Your task to perform on an android device: turn on javascript in the chrome app Image 0: 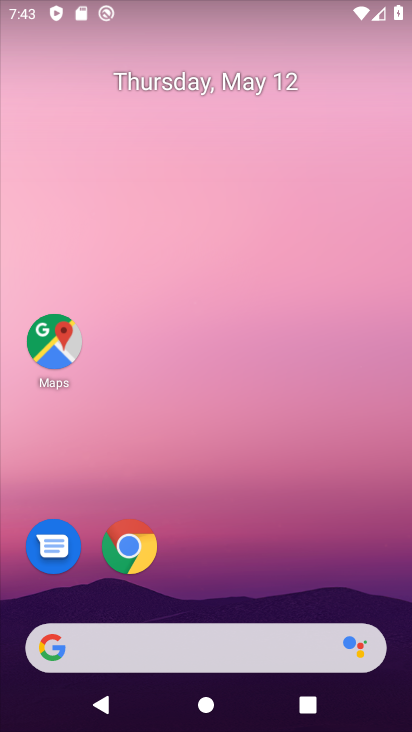
Step 0: click (136, 545)
Your task to perform on an android device: turn on javascript in the chrome app Image 1: 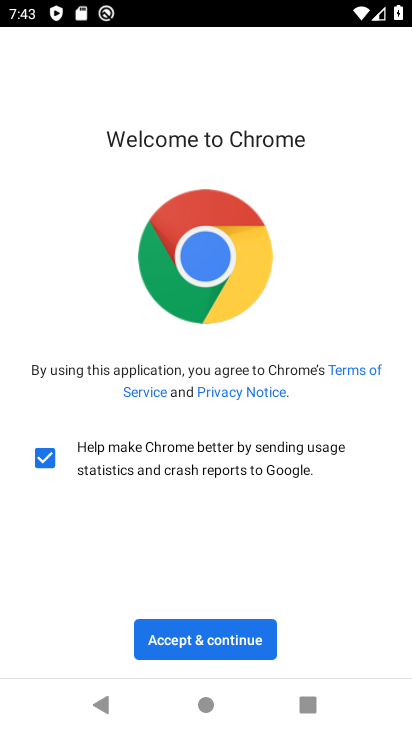
Step 1: click (159, 638)
Your task to perform on an android device: turn on javascript in the chrome app Image 2: 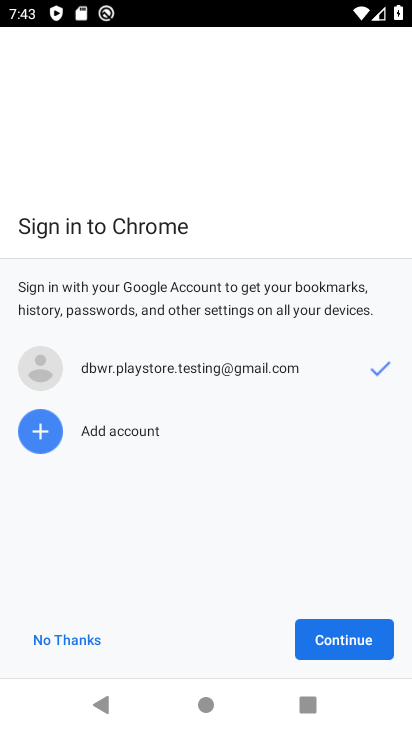
Step 2: click (354, 658)
Your task to perform on an android device: turn on javascript in the chrome app Image 3: 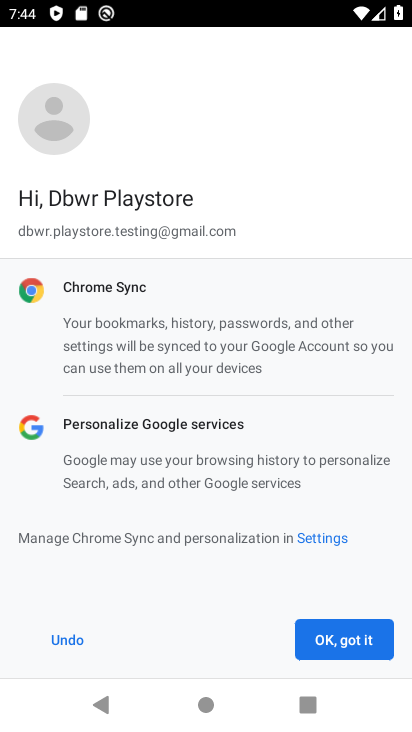
Step 3: click (354, 658)
Your task to perform on an android device: turn on javascript in the chrome app Image 4: 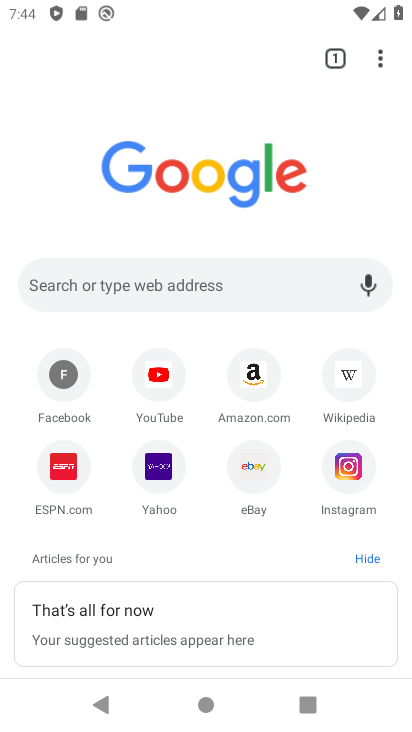
Step 4: drag from (380, 62) to (167, 493)
Your task to perform on an android device: turn on javascript in the chrome app Image 5: 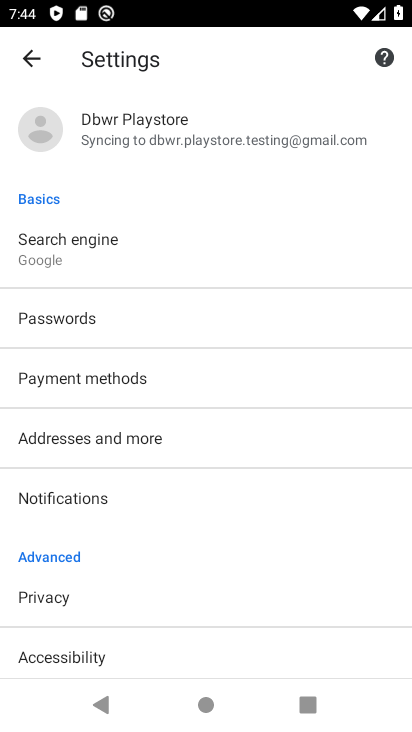
Step 5: drag from (136, 631) to (202, 286)
Your task to perform on an android device: turn on javascript in the chrome app Image 6: 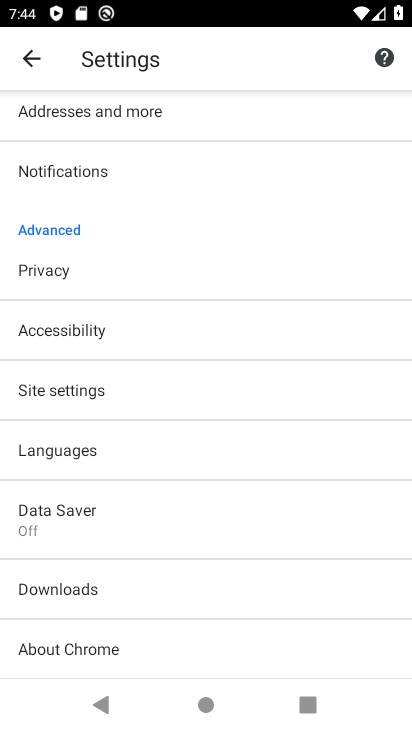
Step 6: click (83, 393)
Your task to perform on an android device: turn on javascript in the chrome app Image 7: 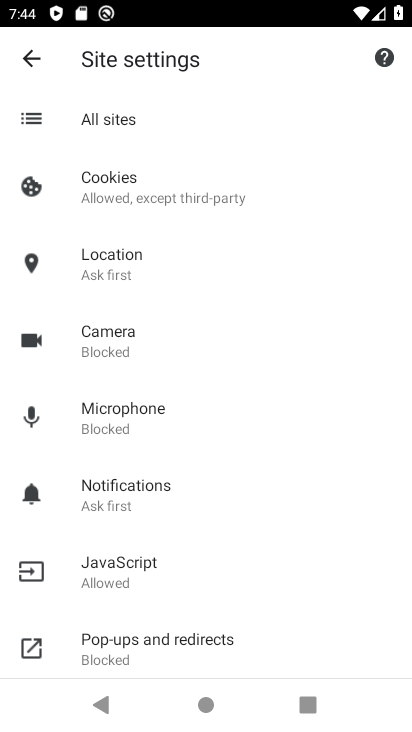
Step 7: click (126, 578)
Your task to perform on an android device: turn on javascript in the chrome app Image 8: 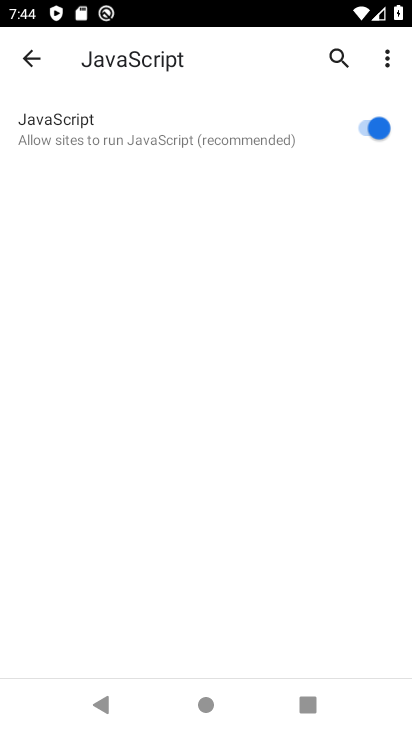
Step 8: task complete